Your task to perform on an android device: turn on airplane mode Image 0: 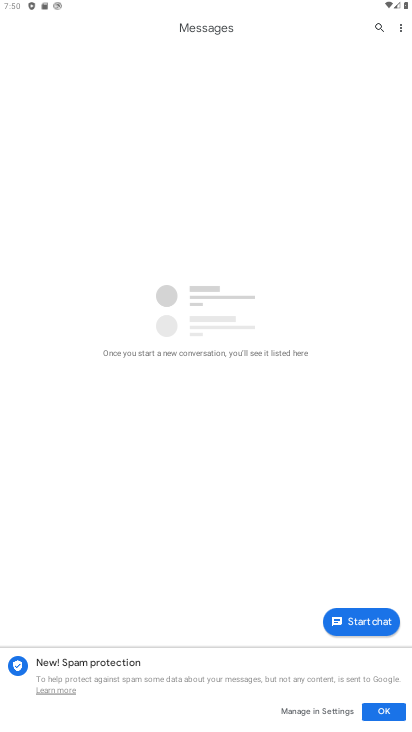
Step 0: press home button
Your task to perform on an android device: turn on airplane mode Image 1: 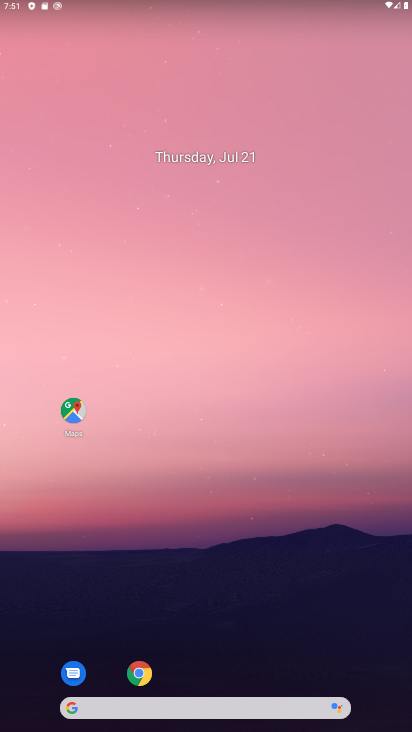
Step 1: drag from (286, 628) to (286, 105)
Your task to perform on an android device: turn on airplane mode Image 2: 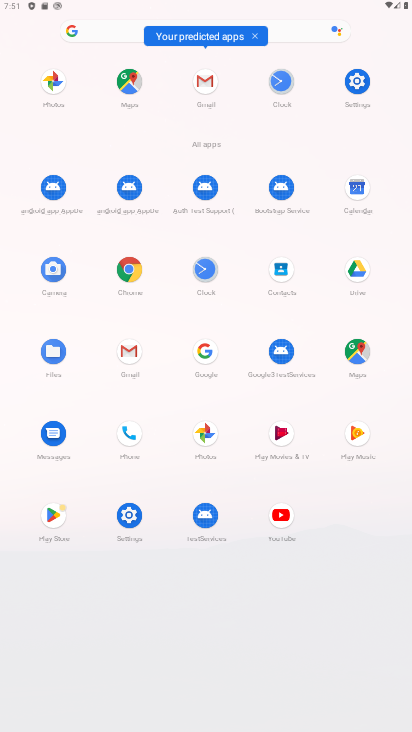
Step 2: click (323, 76)
Your task to perform on an android device: turn on airplane mode Image 3: 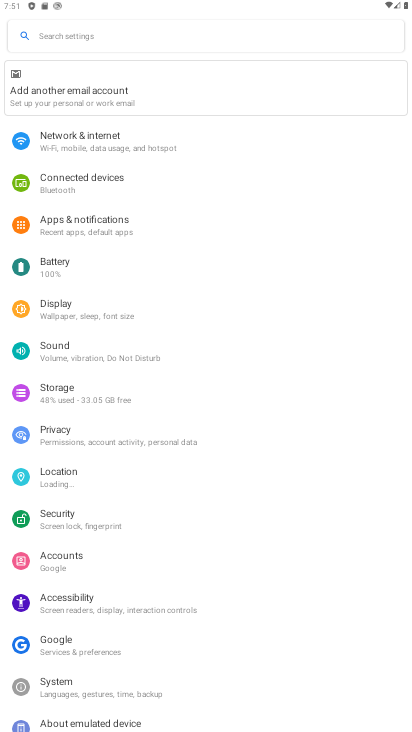
Step 3: click (233, 137)
Your task to perform on an android device: turn on airplane mode Image 4: 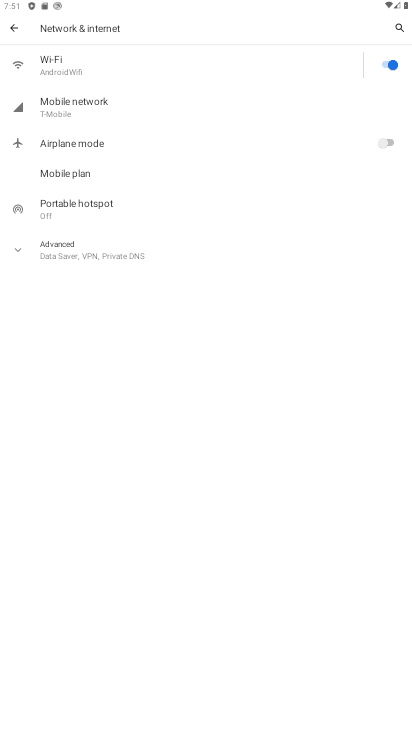
Step 4: click (380, 139)
Your task to perform on an android device: turn on airplane mode Image 5: 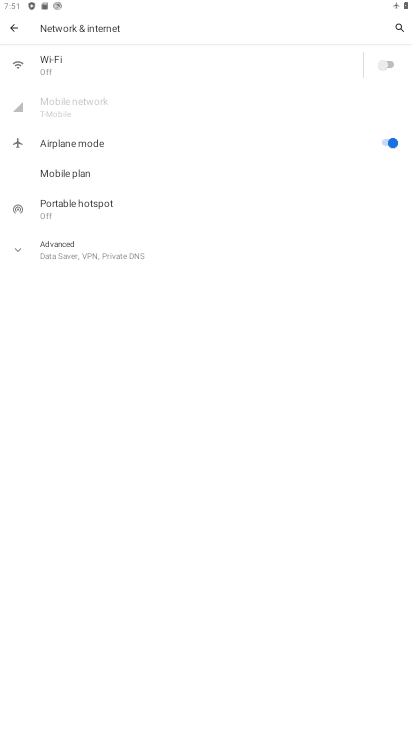
Step 5: task complete